Your task to perform on an android device: change the clock display to show seconds Image 0: 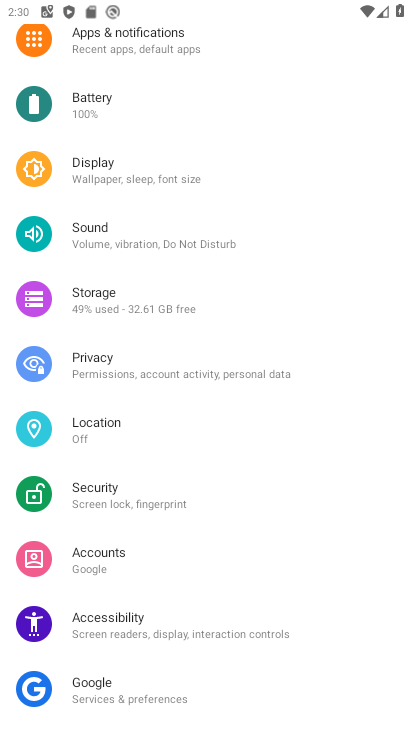
Step 0: press home button
Your task to perform on an android device: change the clock display to show seconds Image 1: 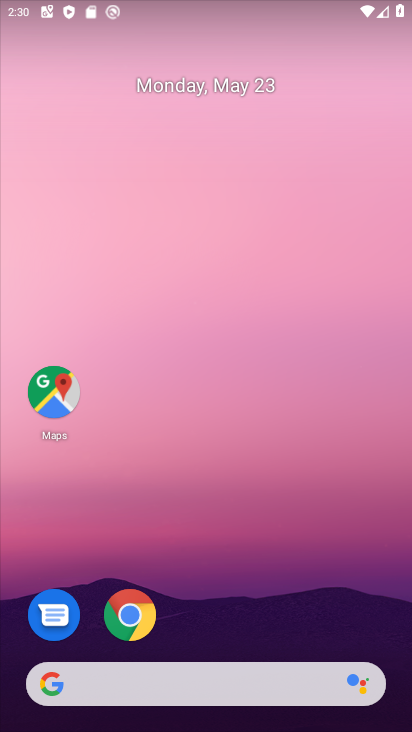
Step 1: drag from (231, 646) to (290, 13)
Your task to perform on an android device: change the clock display to show seconds Image 2: 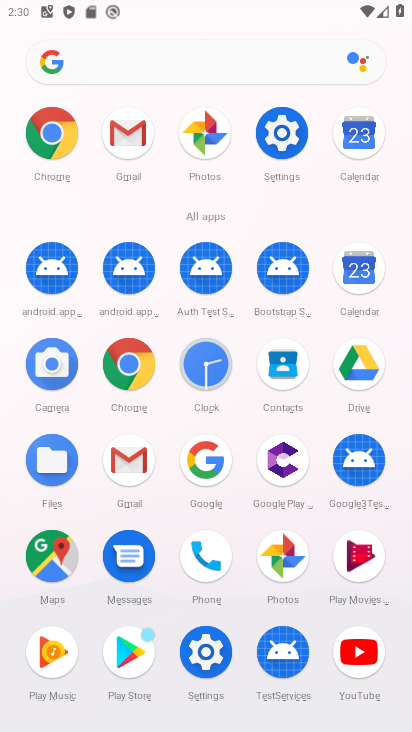
Step 2: click (205, 366)
Your task to perform on an android device: change the clock display to show seconds Image 3: 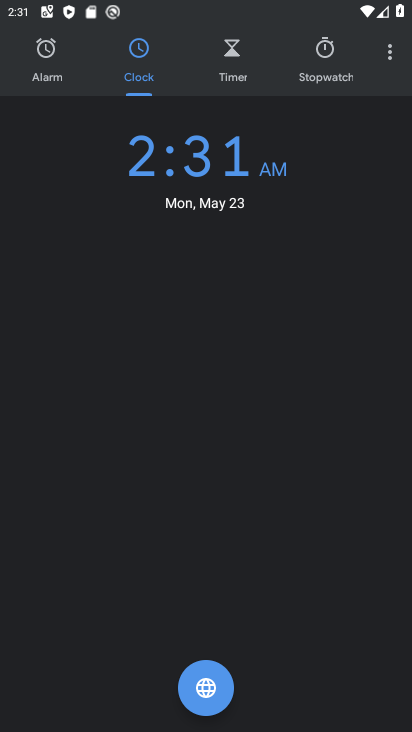
Step 3: click (391, 53)
Your task to perform on an android device: change the clock display to show seconds Image 4: 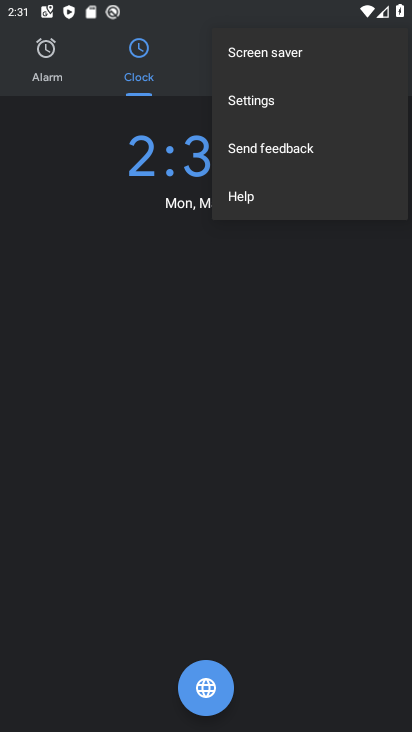
Step 4: click (275, 109)
Your task to perform on an android device: change the clock display to show seconds Image 5: 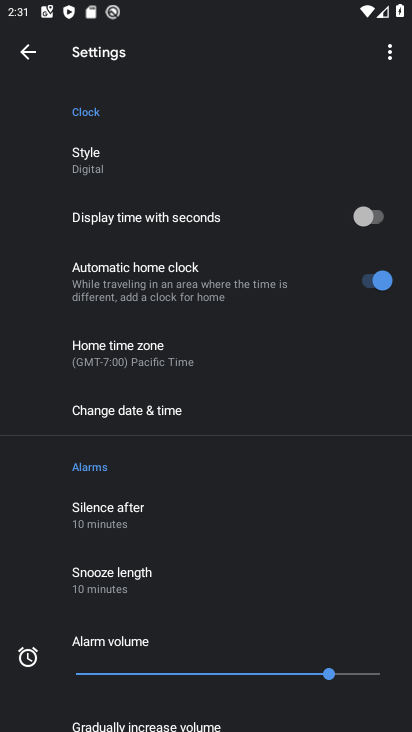
Step 5: click (367, 211)
Your task to perform on an android device: change the clock display to show seconds Image 6: 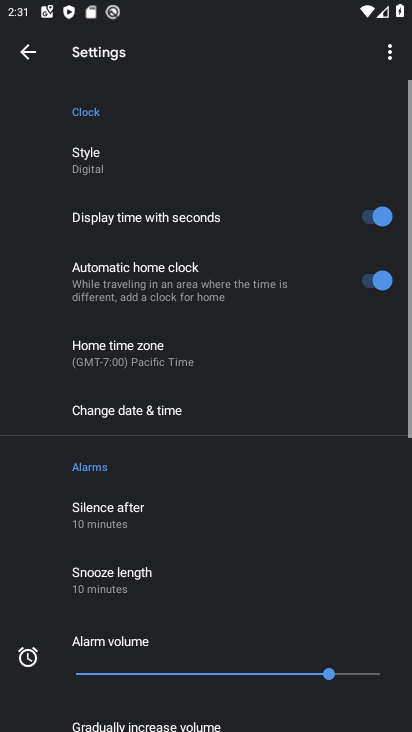
Step 6: task complete